Your task to perform on an android device: turn on bluetooth scan Image 0: 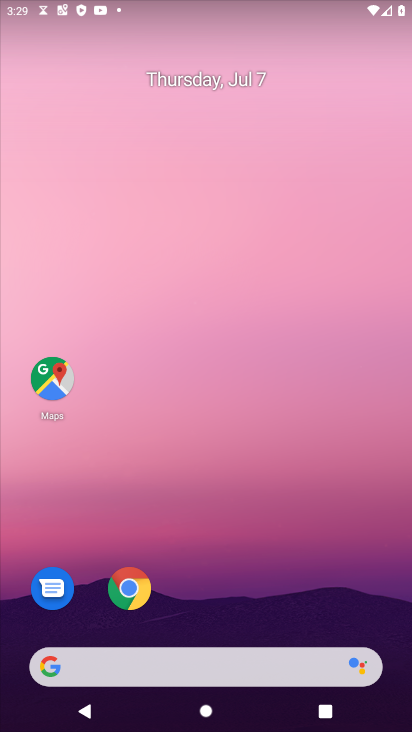
Step 0: drag from (253, 623) to (245, 110)
Your task to perform on an android device: turn on bluetooth scan Image 1: 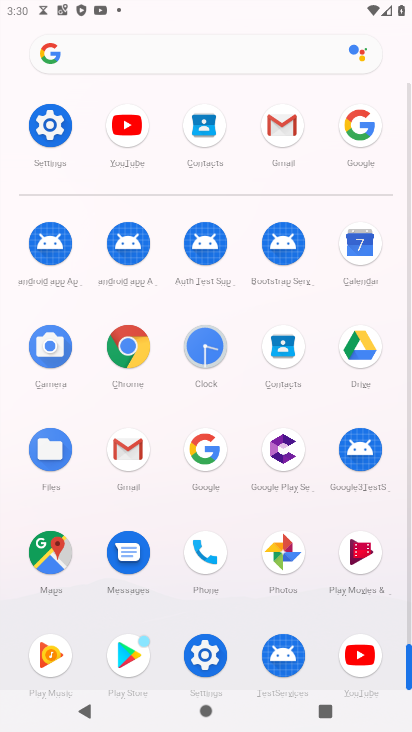
Step 1: click (206, 650)
Your task to perform on an android device: turn on bluetooth scan Image 2: 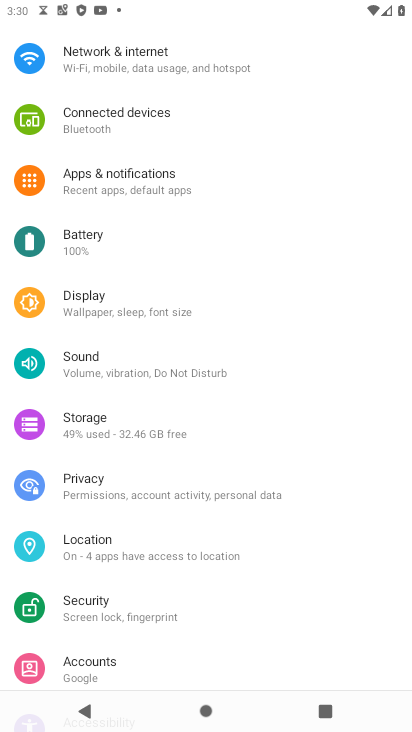
Step 2: click (88, 541)
Your task to perform on an android device: turn on bluetooth scan Image 3: 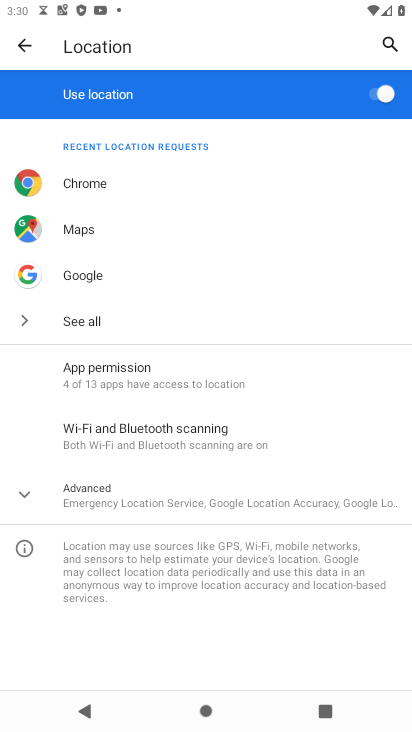
Step 3: click (129, 432)
Your task to perform on an android device: turn on bluetooth scan Image 4: 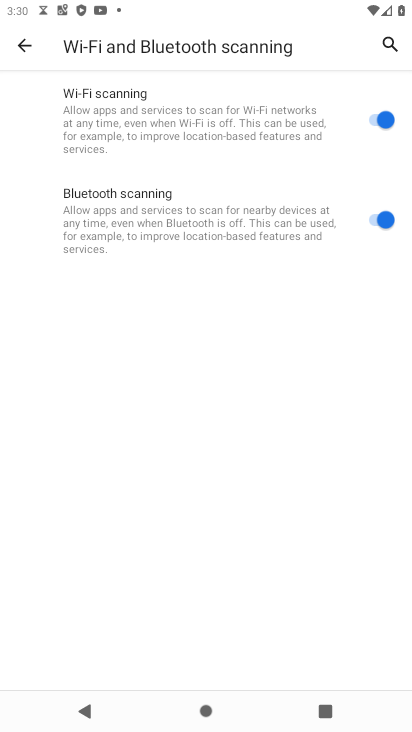
Step 4: task complete